Your task to perform on an android device: change notification settings in the gmail app Image 0: 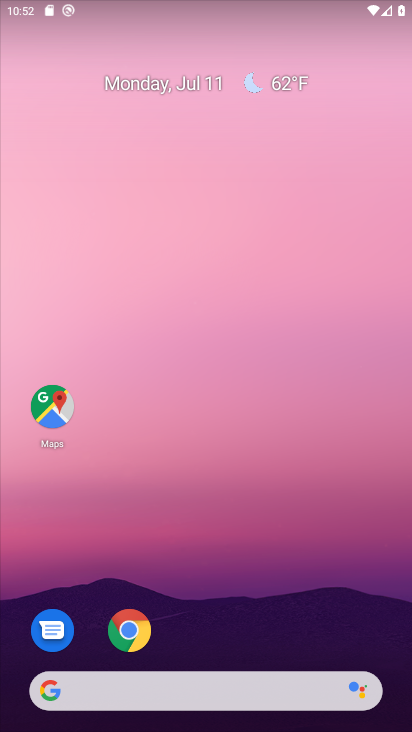
Step 0: drag from (245, 622) to (244, 32)
Your task to perform on an android device: change notification settings in the gmail app Image 1: 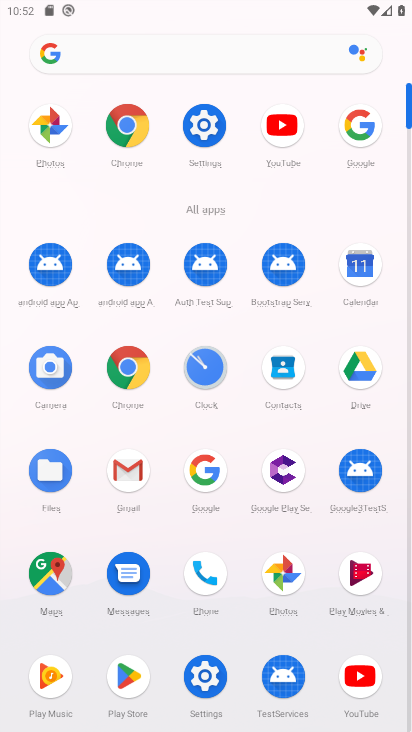
Step 1: click (136, 473)
Your task to perform on an android device: change notification settings in the gmail app Image 2: 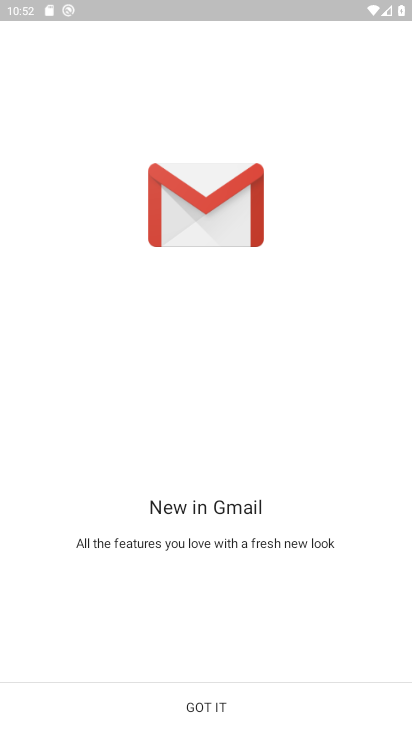
Step 2: click (225, 709)
Your task to perform on an android device: change notification settings in the gmail app Image 3: 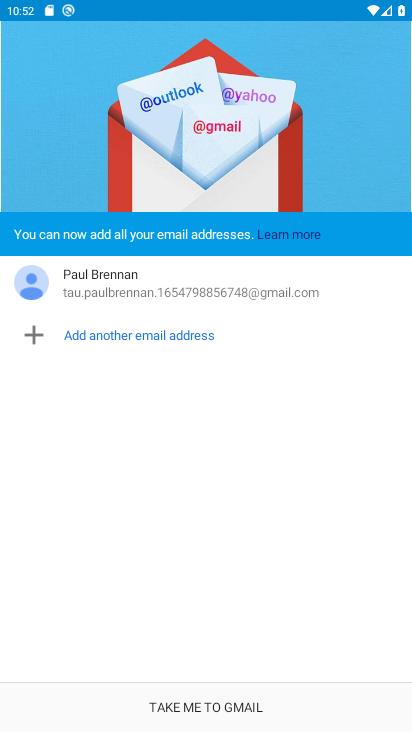
Step 3: click (222, 698)
Your task to perform on an android device: change notification settings in the gmail app Image 4: 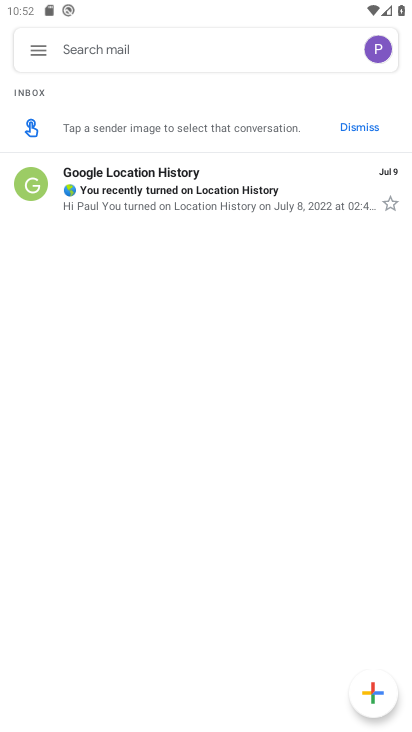
Step 4: click (40, 48)
Your task to perform on an android device: change notification settings in the gmail app Image 5: 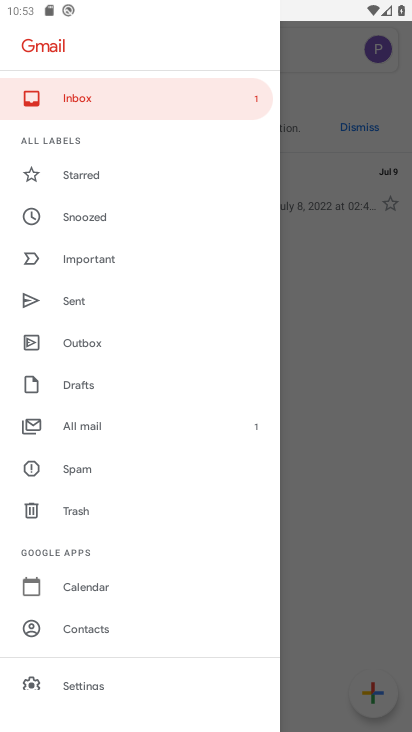
Step 5: click (83, 682)
Your task to perform on an android device: change notification settings in the gmail app Image 6: 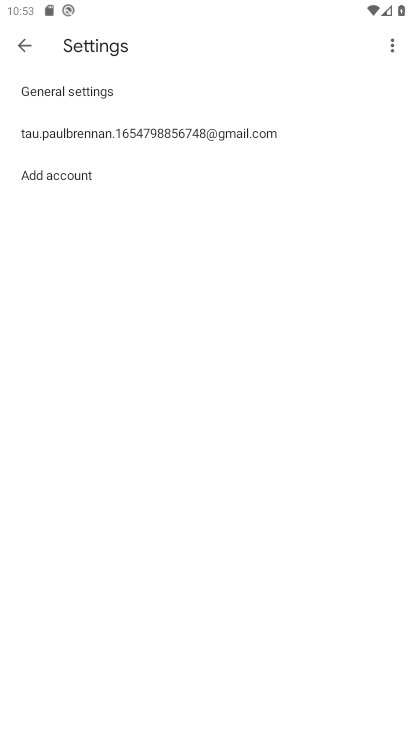
Step 6: click (85, 89)
Your task to perform on an android device: change notification settings in the gmail app Image 7: 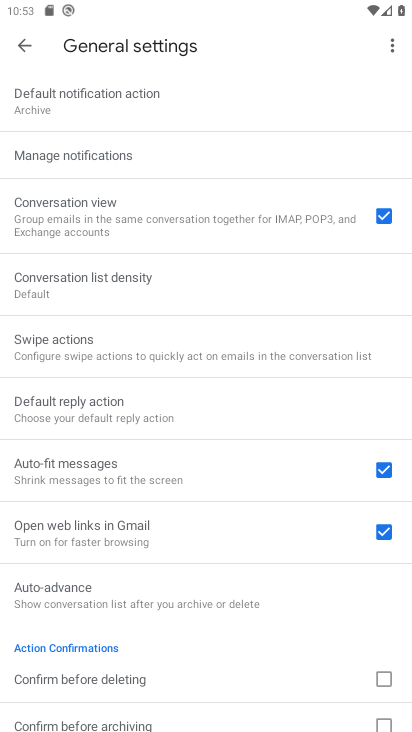
Step 7: click (127, 153)
Your task to perform on an android device: change notification settings in the gmail app Image 8: 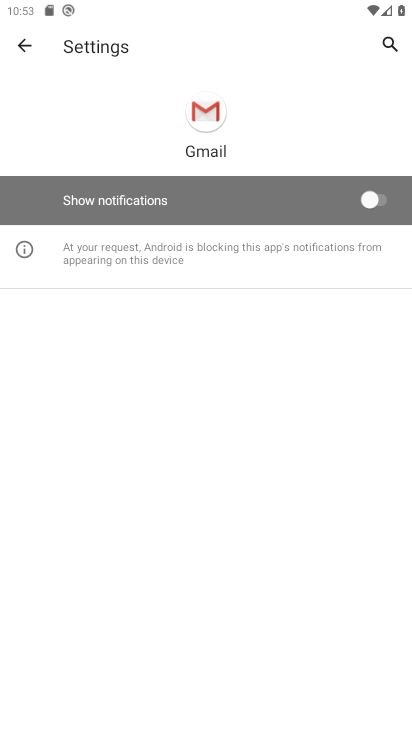
Step 8: click (372, 205)
Your task to perform on an android device: change notification settings in the gmail app Image 9: 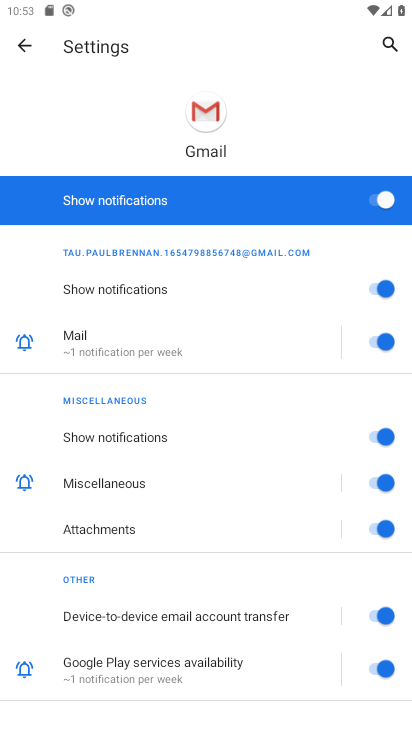
Step 9: task complete